Your task to perform on an android device: change notification settings in the gmail app Image 0: 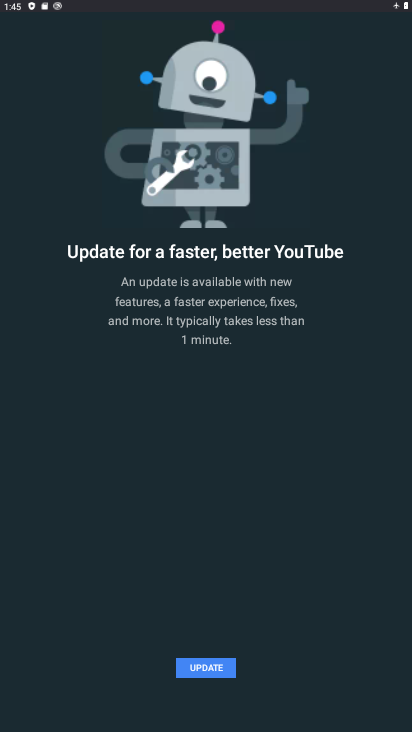
Step 0: drag from (204, 553) to (380, 6)
Your task to perform on an android device: change notification settings in the gmail app Image 1: 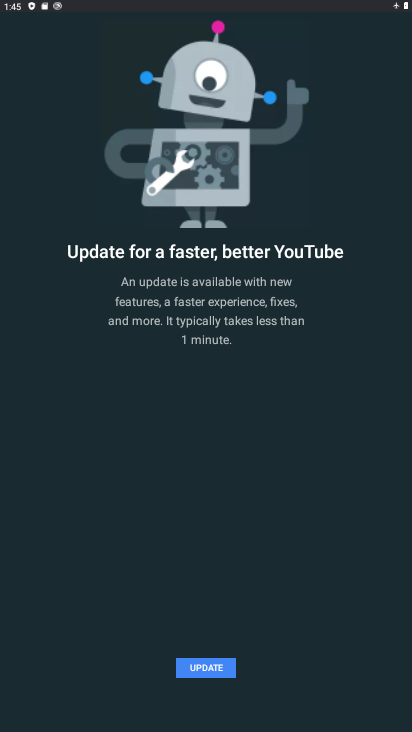
Step 1: press home button
Your task to perform on an android device: change notification settings in the gmail app Image 2: 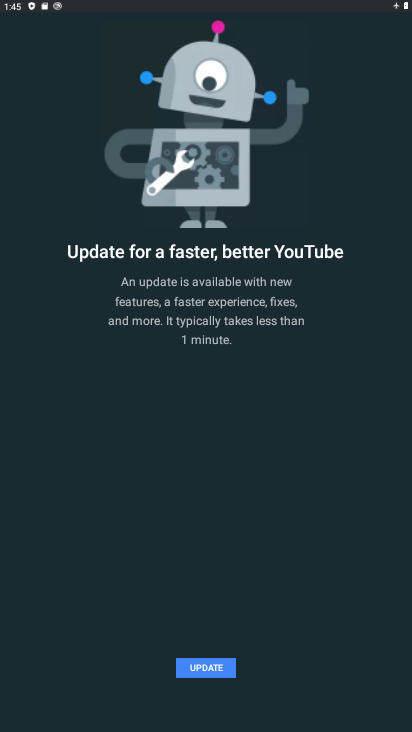
Step 2: click (221, 183)
Your task to perform on an android device: change notification settings in the gmail app Image 3: 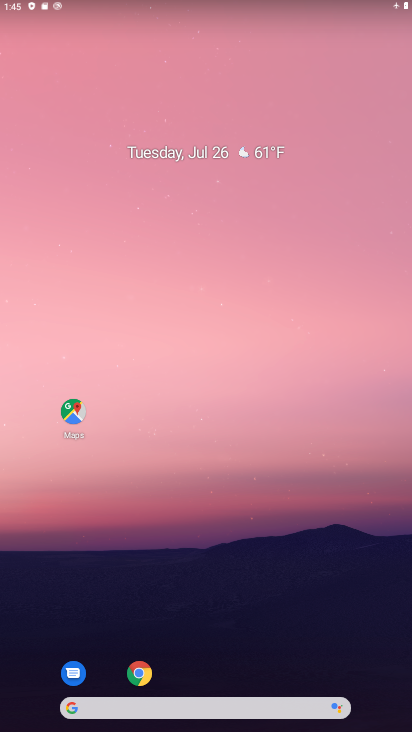
Step 3: drag from (252, 237) to (289, 146)
Your task to perform on an android device: change notification settings in the gmail app Image 4: 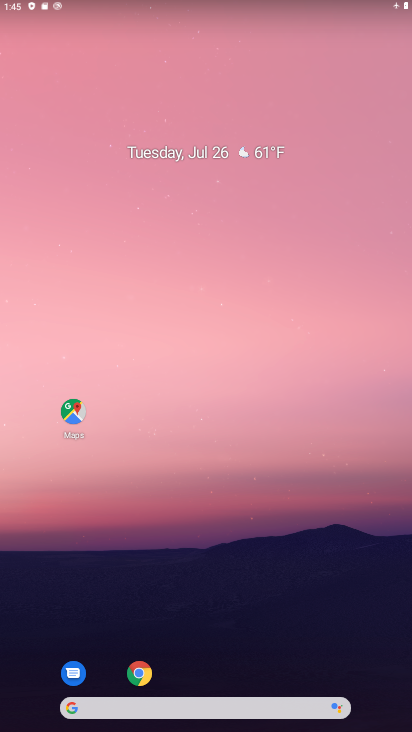
Step 4: press home button
Your task to perform on an android device: change notification settings in the gmail app Image 5: 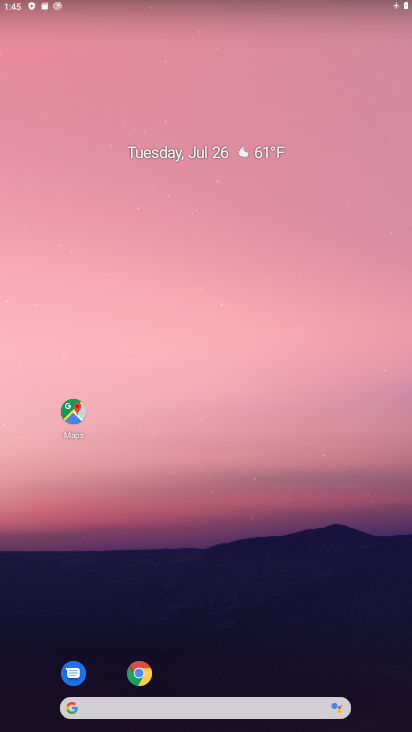
Step 5: press home button
Your task to perform on an android device: change notification settings in the gmail app Image 6: 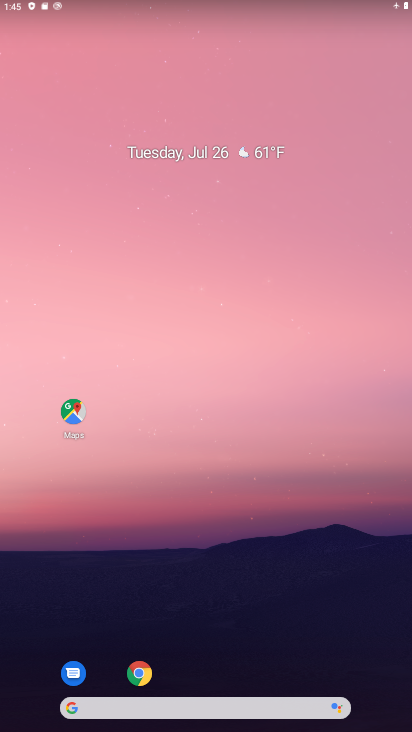
Step 6: drag from (111, 515) to (296, 0)
Your task to perform on an android device: change notification settings in the gmail app Image 7: 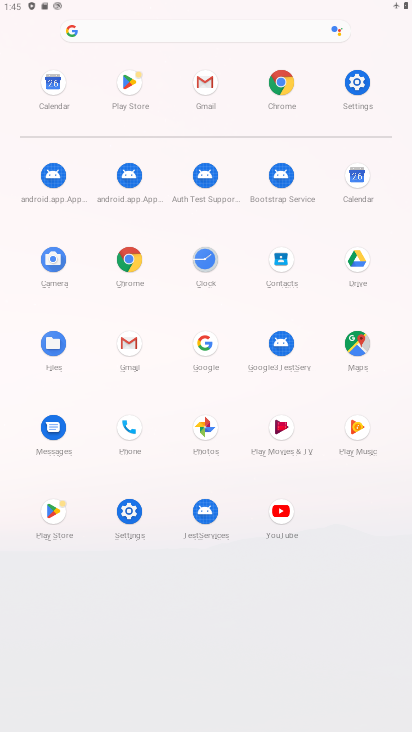
Step 7: drag from (211, 541) to (257, 139)
Your task to perform on an android device: change notification settings in the gmail app Image 8: 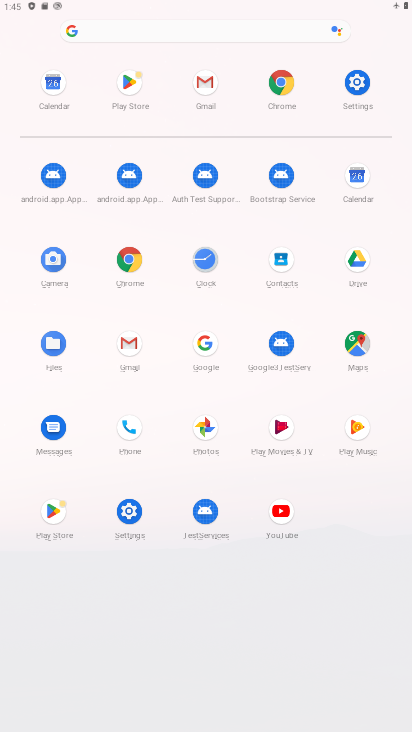
Step 8: click (133, 343)
Your task to perform on an android device: change notification settings in the gmail app Image 9: 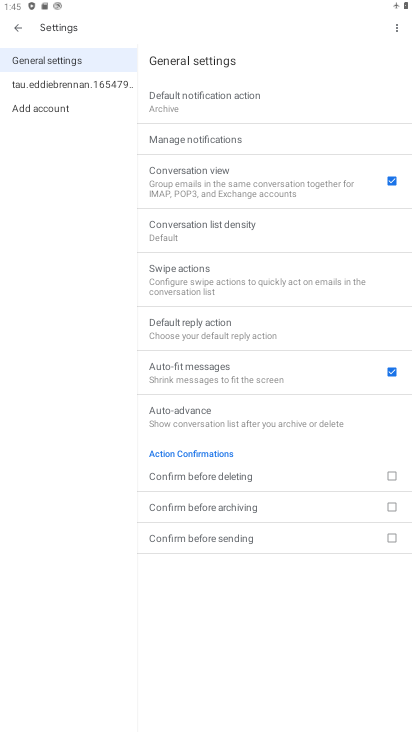
Step 9: click (43, 72)
Your task to perform on an android device: change notification settings in the gmail app Image 10: 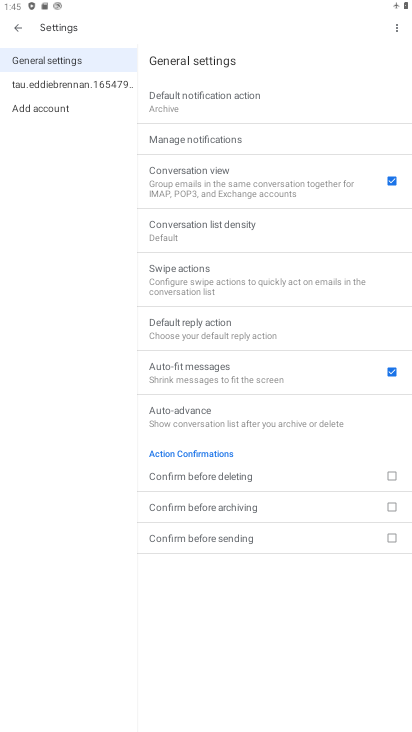
Step 10: click (56, 72)
Your task to perform on an android device: change notification settings in the gmail app Image 11: 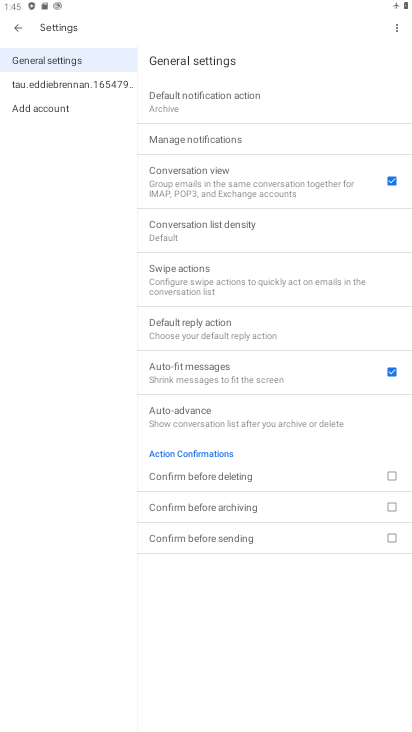
Step 11: click (98, 80)
Your task to perform on an android device: change notification settings in the gmail app Image 12: 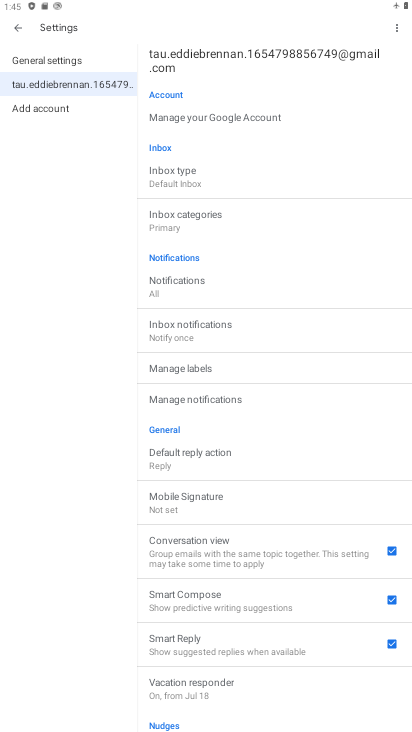
Step 12: drag from (226, 463) to (252, 313)
Your task to perform on an android device: change notification settings in the gmail app Image 13: 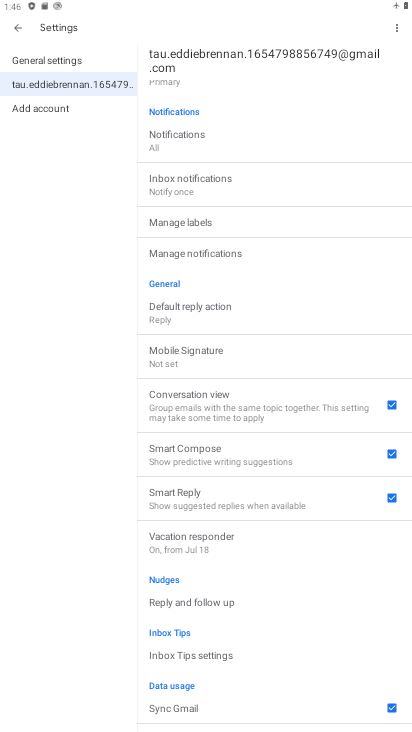
Step 13: click (251, 251)
Your task to perform on an android device: change notification settings in the gmail app Image 14: 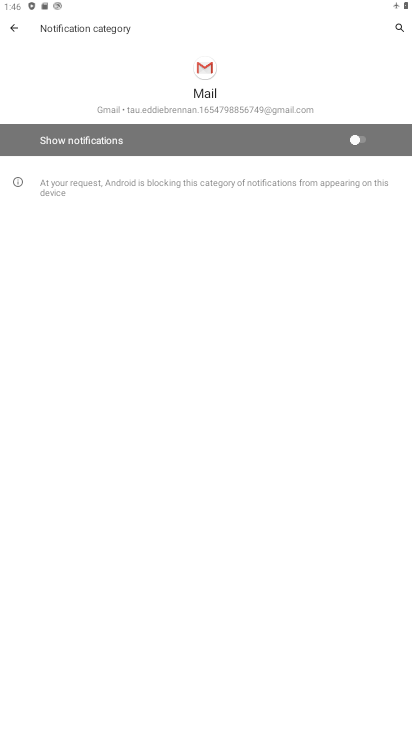
Step 14: click (347, 142)
Your task to perform on an android device: change notification settings in the gmail app Image 15: 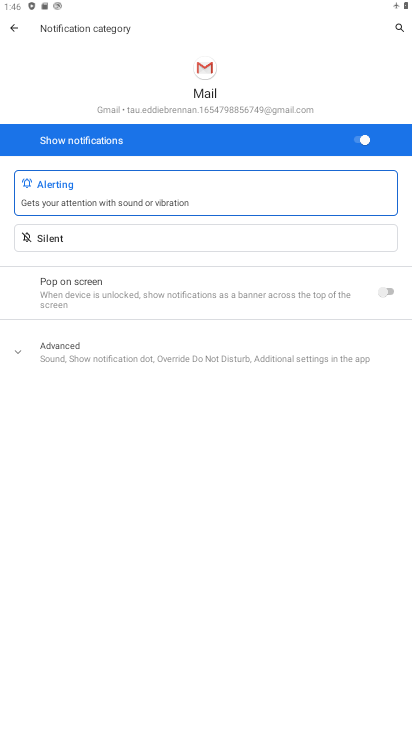
Step 15: task complete